Your task to perform on an android device: snooze an email in the gmail app Image 0: 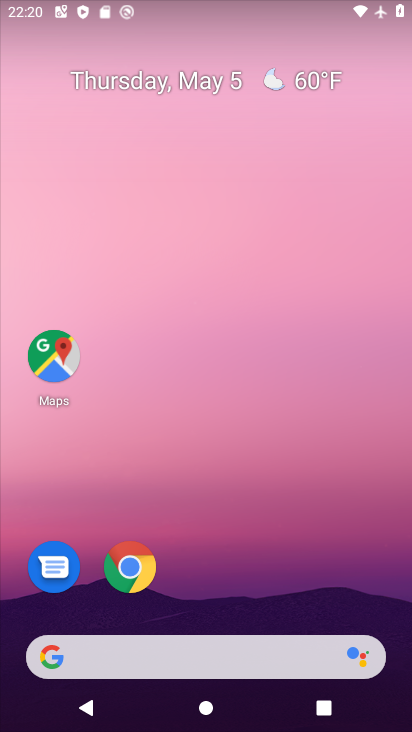
Step 0: drag from (214, 590) to (199, 202)
Your task to perform on an android device: snooze an email in the gmail app Image 1: 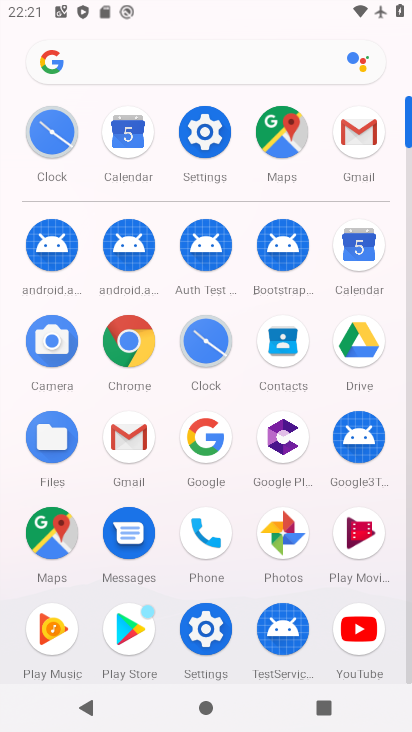
Step 1: click (336, 136)
Your task to perform on an android device: snooze an email in the gmail app Image 2: 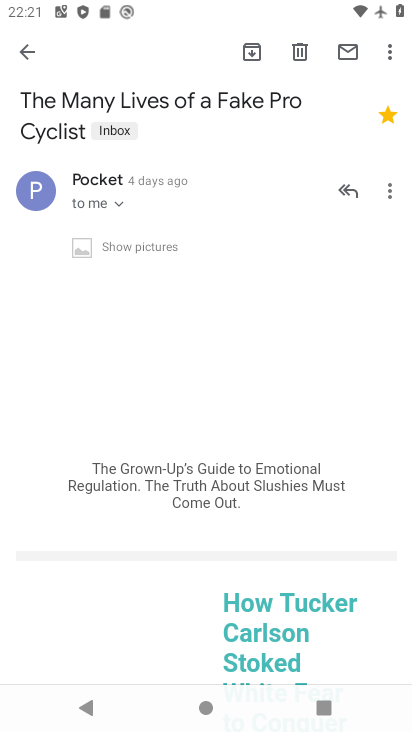
Step 2: click (384, 52)
Your task to perform on an android device: snooze an email in the gmail app Image 3: 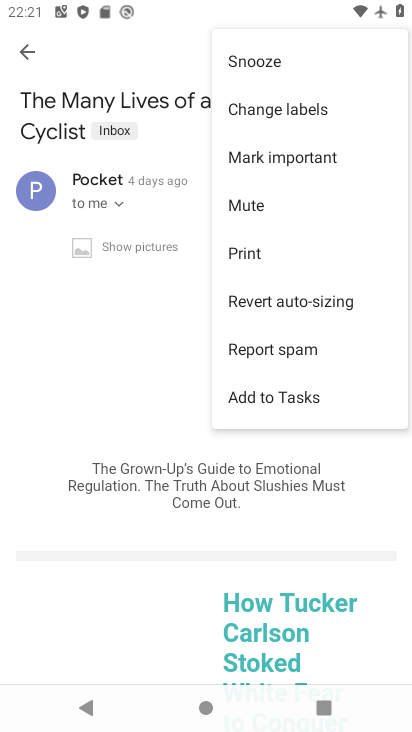
Step 3: click (142, 164)
Your task to perform on an android device: snooze an email in the gmail app Image 4: 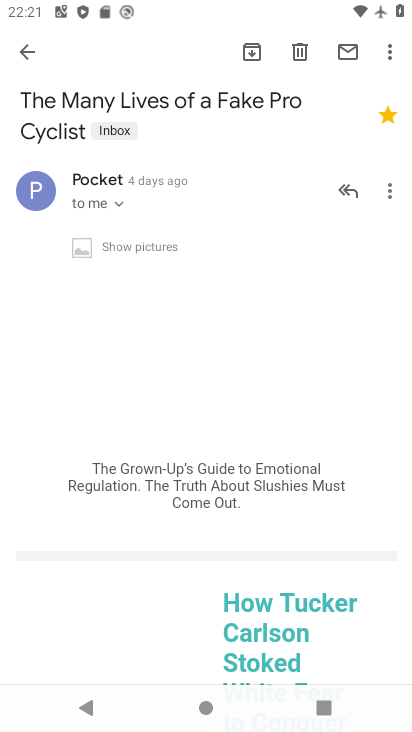
Step 4: click (33, 49)
Your task to perform on an android device: snooze an email in the gmail app Image 5: 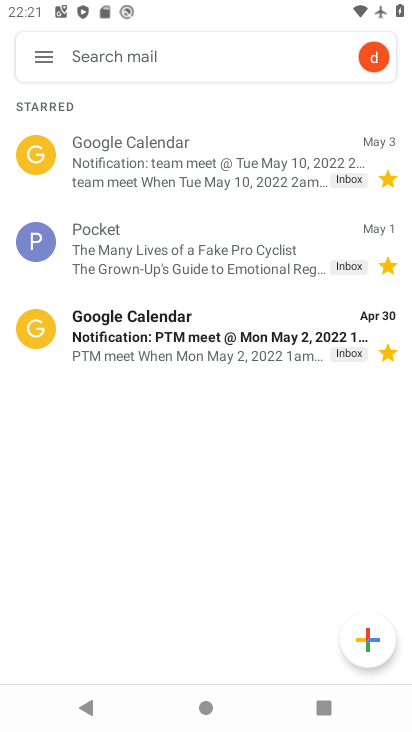
Step 5: click (33, 49)
Your task to perform on an android device: snooze an email in the gmail app Image 6: 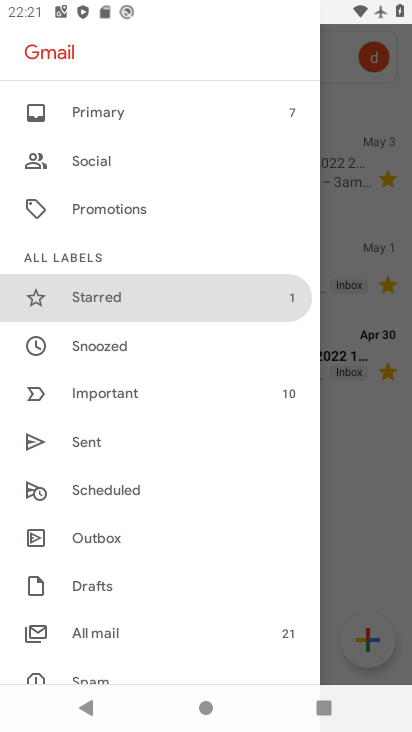
Step 6: drag from (128, 599) to (158, 448)
Your task to perform on an android device: snooze an email in the gmail app Image 7: 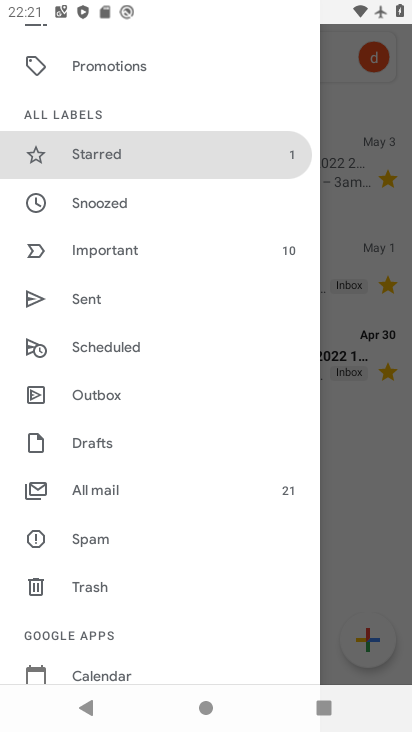
Step 7: click (112, 480)
Your task to perform on an android device: snooze an email in the gmail app Image 8: 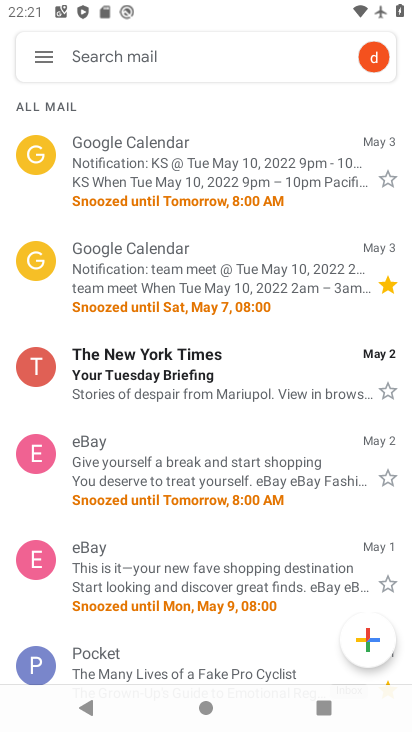
Step 8: click (185, 203)
Your task to perform on an android device: snooze an email in the gmail app Image 9: 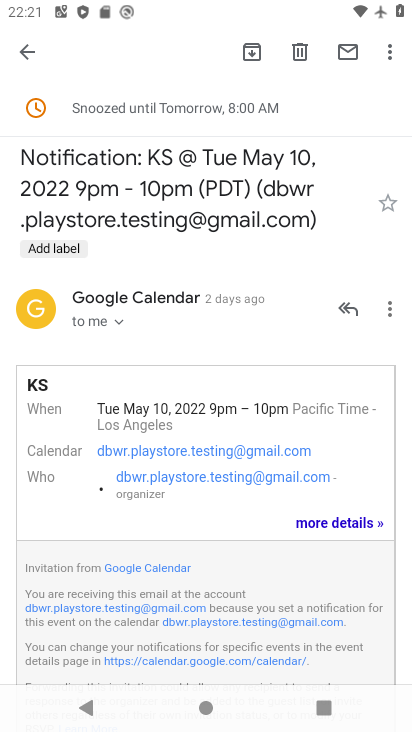
Step 9: click (384, 59)
Your task to perform on an android device: snooze an email in the gmail app Image 10: 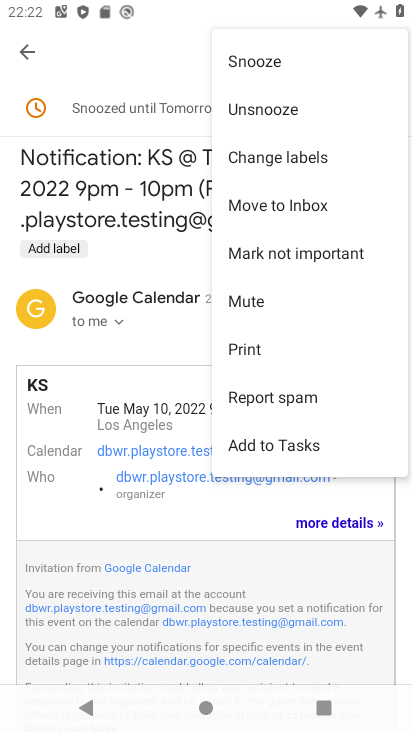
Step 10: click (286, 62)
Your task to perform on an android device: snooze an email in the gmail app Image 11: 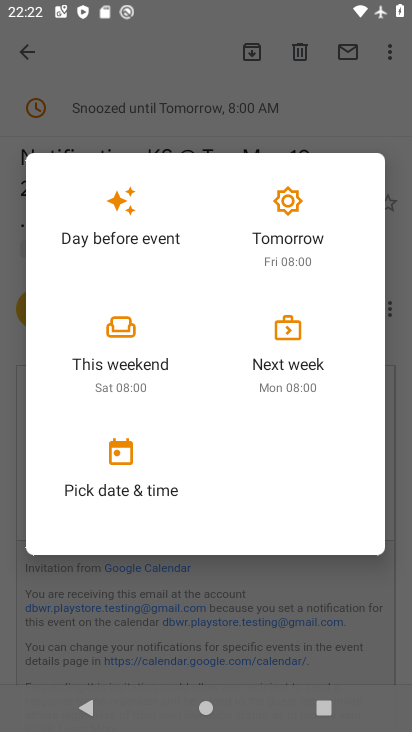
Step 11: click (249, 216)
Your task to perform on an android device: snooze an email in the gmail app Image 12: 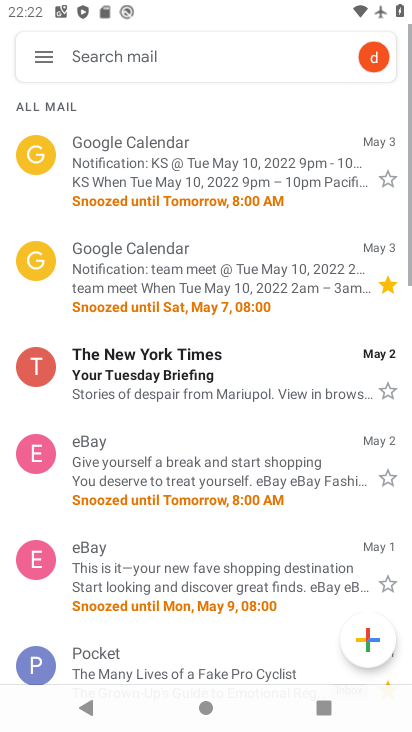
Step 12: task complete